Your task to perform on an android device: add a label to a message in the gmail app Image 0: 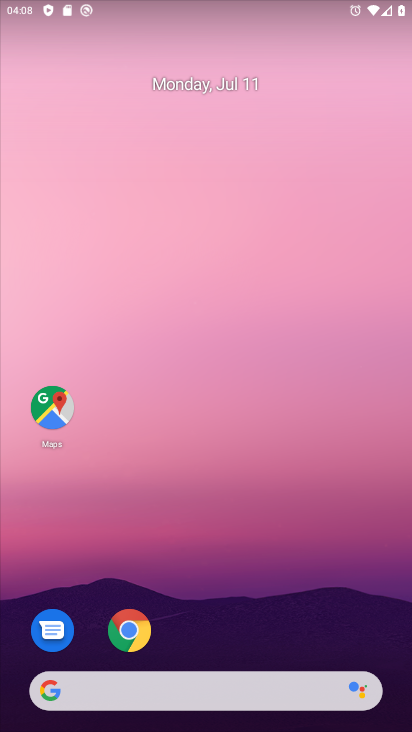
Step 0: drag from (222, 651) to (216, 75)
Your task to perform on an android device: add a label to a message in the gmail app Image 1: 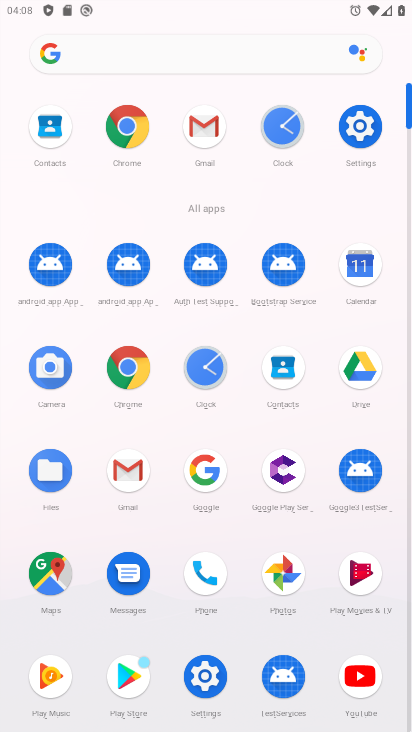
Step 1: click (207, 119)
Your task to perform on an android device: add a label to a message in the gmail app Image 2: 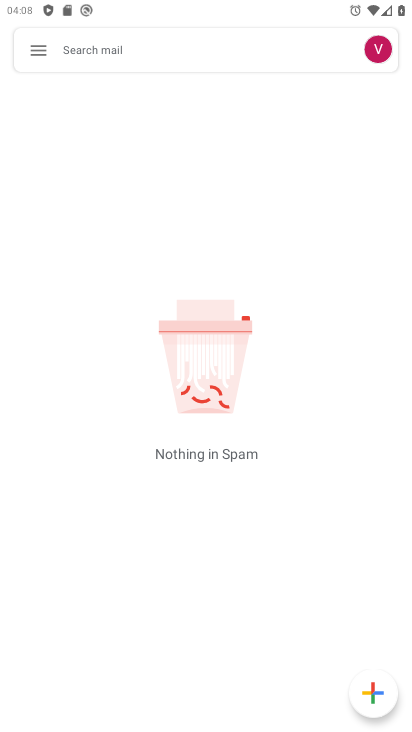
Step 2: click (36, 47)
Your task to perform on an android device: add a label to a message in the gmail app Image 3: 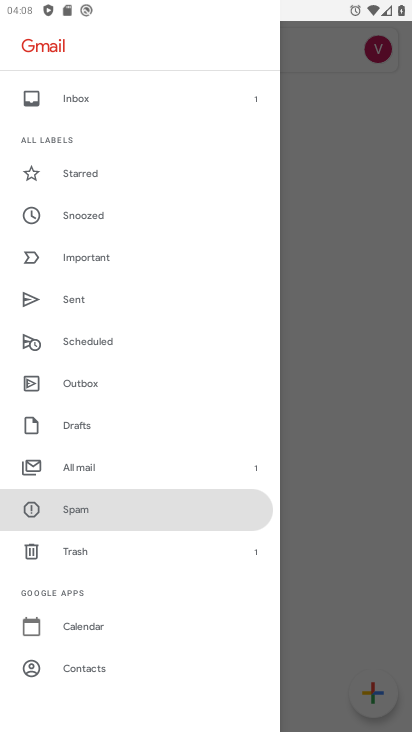
Step 3: click (90, 465)
Your task to perform on an android device: add a label to a message in the gmail app Image 4: 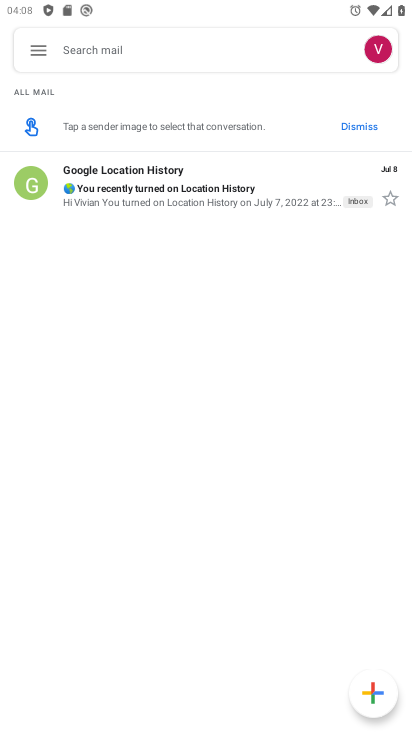
Step 4: click (36, 188)
Your task to perform on an android device: add a label to a message in the gmail app Image 5: 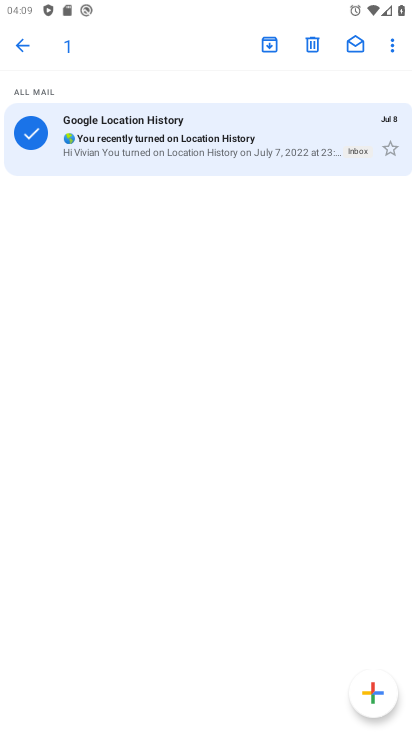
Step 5: click (392, 40)
Your task to perform on an android device: add a label to a message in the gmail app Image 6: 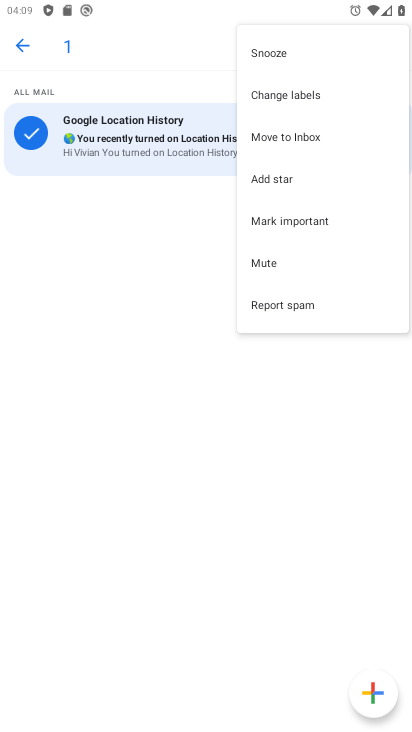
Step 6: click (304, 94)
Your task to perform on an android device: add a label to a message in the gmail app Image 7: 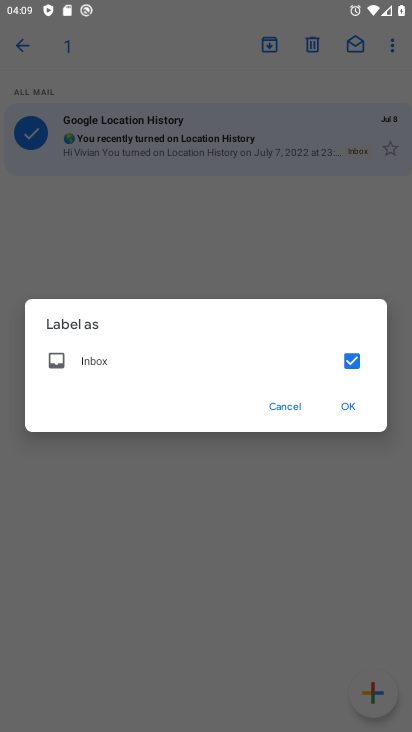
Step 7: click (353, 356)
Your task to perform on an android device: add a label to a message in the gmail app Image 8: 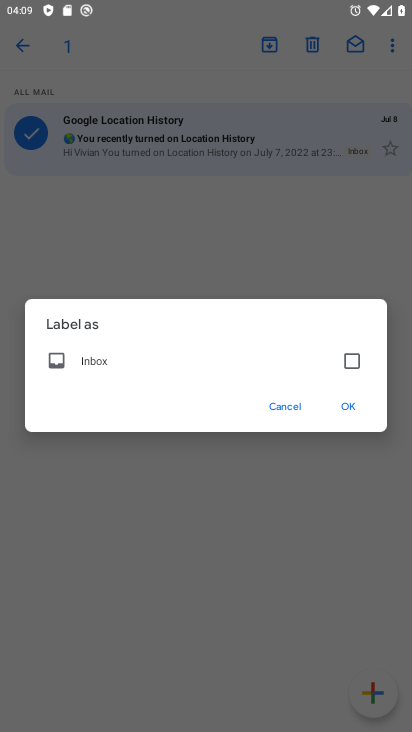
Step 8: click (351, 407)
Your task to perform on an android device: add a label to a message in the gmail app Image 9: 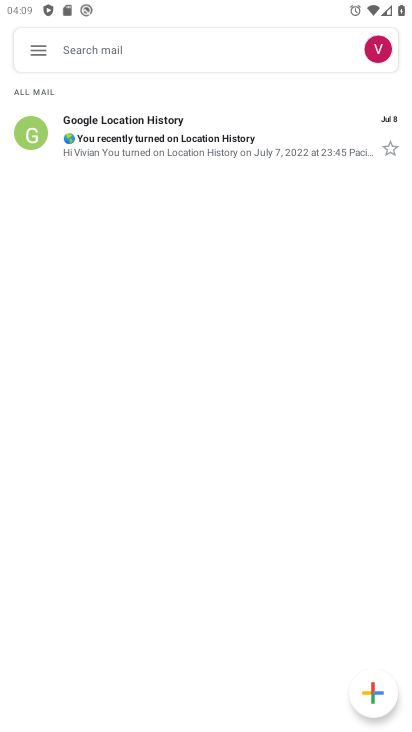
Step 9: task complete